Your task to perform on an android device: check google app version Image 0: 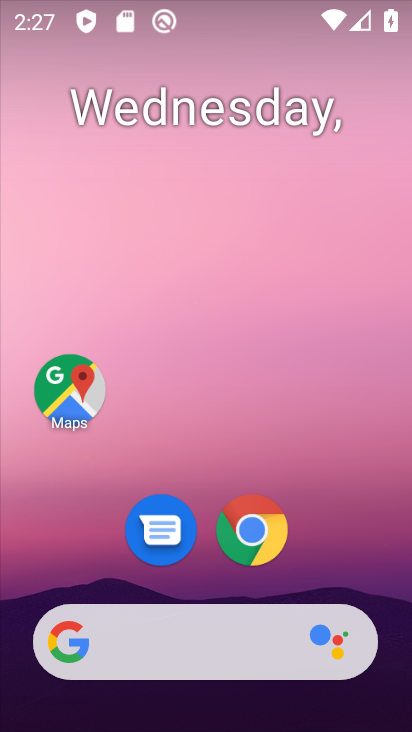
Step 0: drag from (271, 625) to (250, 238)
Your task to perform on an android device: check google app version Image 1: 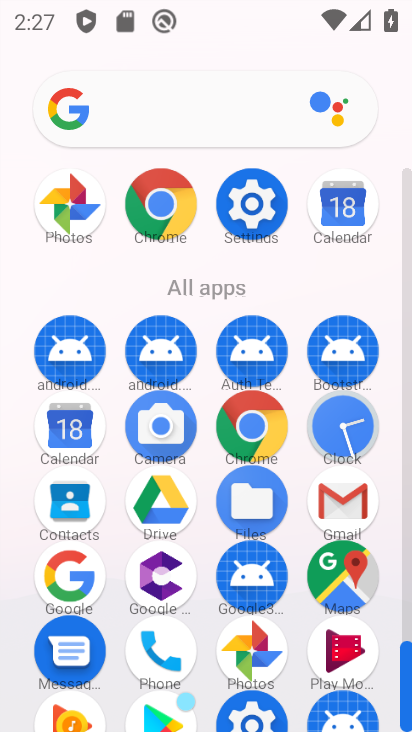
Step 1: click (77, 577)
Your task to perform on an android device: check google app version Image 2: 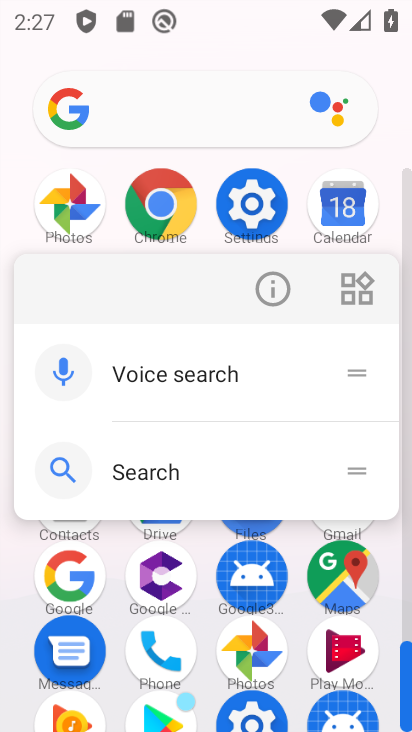
Step 2: click (279, 280)
Your task to perform on an android device: check google app version Image 3: 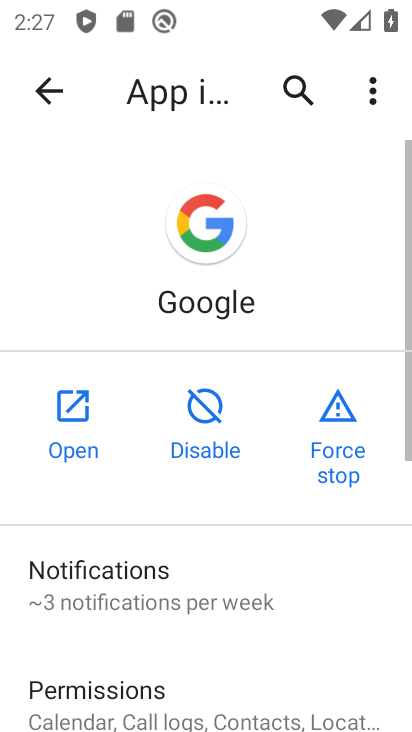
Step 3: drag from (280, 585) to (264, 59)
Your task to perform on an android device: check google app version Image 4: 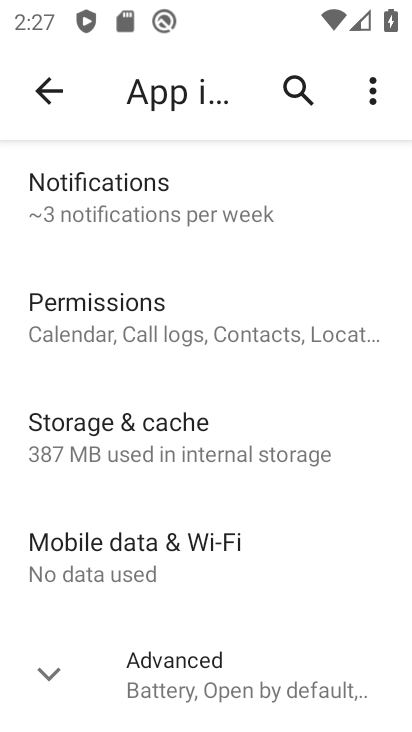
Step 4: click (191, 676)
Your task to perform on an android device: check google app version Image 5: 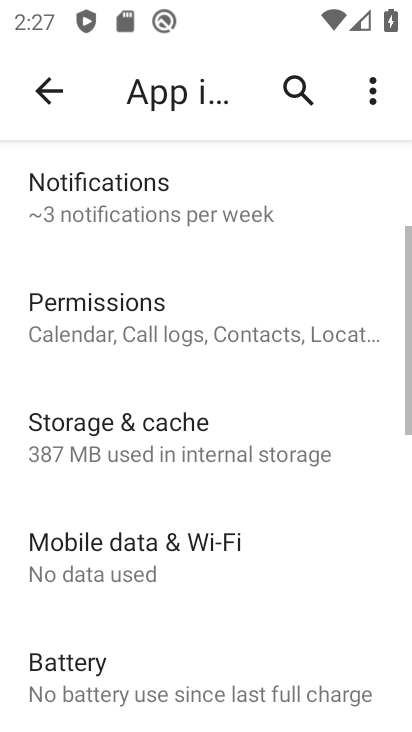
Step 5: task complete